Your task to perform on an android device: What is the news today? Image 0: 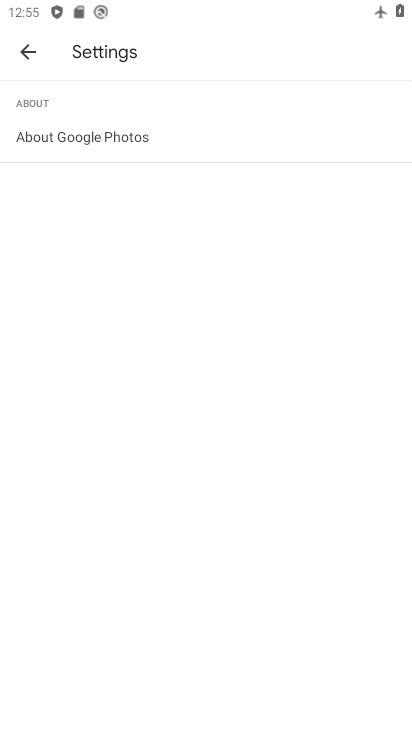
Step 0: press home button
Your task to perform on an android device: What is the news today? Image 1: 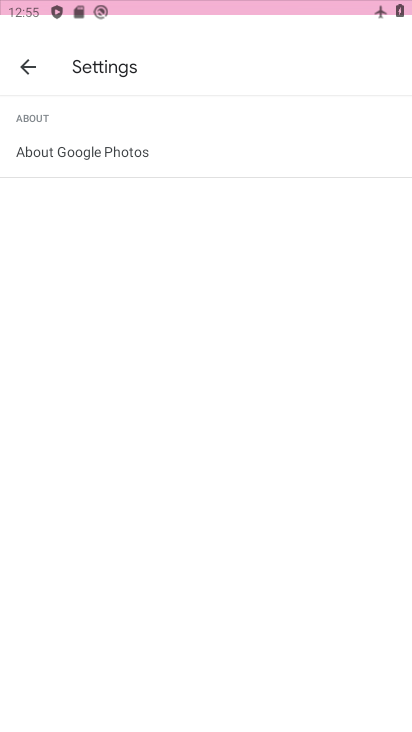
Step 1: press home button
Your task to perform on an android device: What is the news today? Image 2: 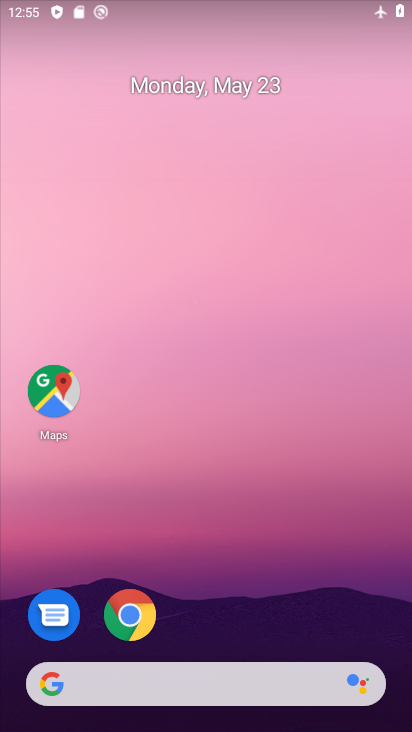
Step 2: click (189, 665)
Your task to perform on an android device: What is the news today? Image 3: 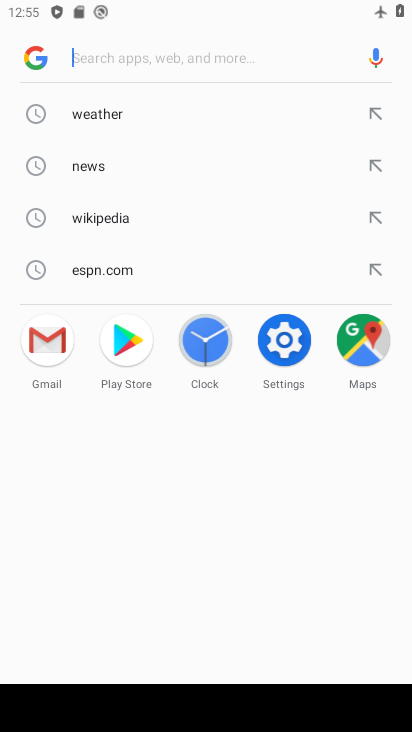
Step 3: click (101, 149)
Your task to perform on an android device: What is the news today? Image 4: 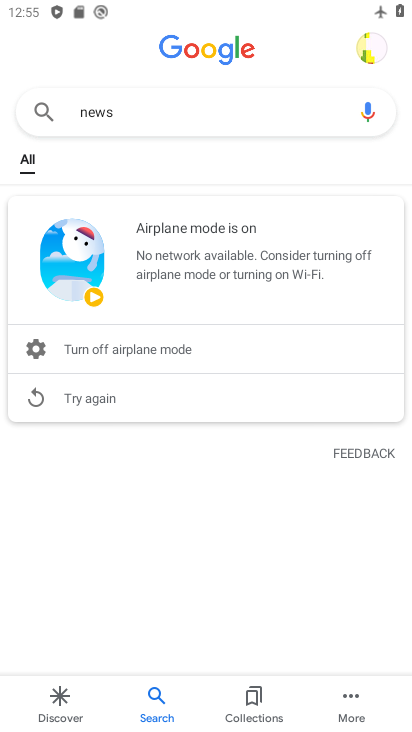
Step 4: task complete